Your task to perform on an android device: Open Maps and search for coffee Image 0: 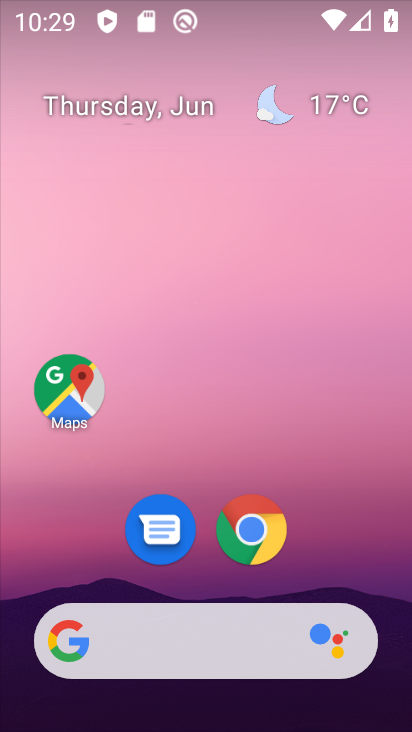
Step 0: click (67, 392)
Your task to perform on an android device: Open Maps and search for coffee Image 1: 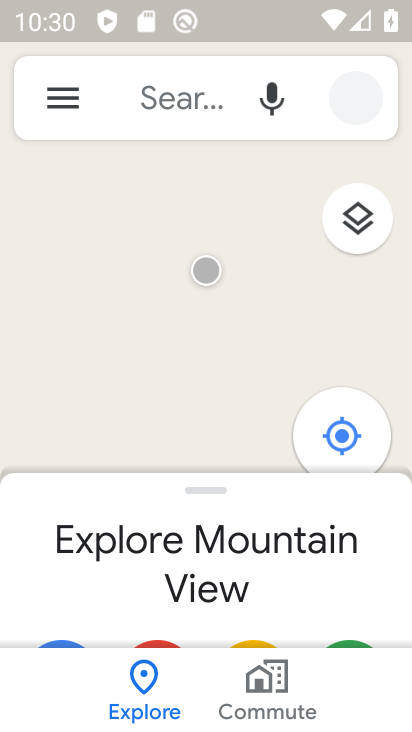
Step 1: click (158, 74)
Your task to perform on an android device: Open Maps and search for coffee Image 2: 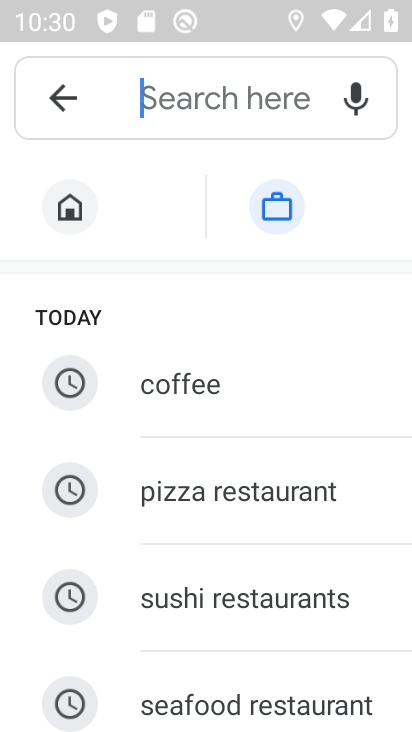
Step 2: type "coffee"
Your task to perform on an android device: Open Maps and search for coffee Image 3: 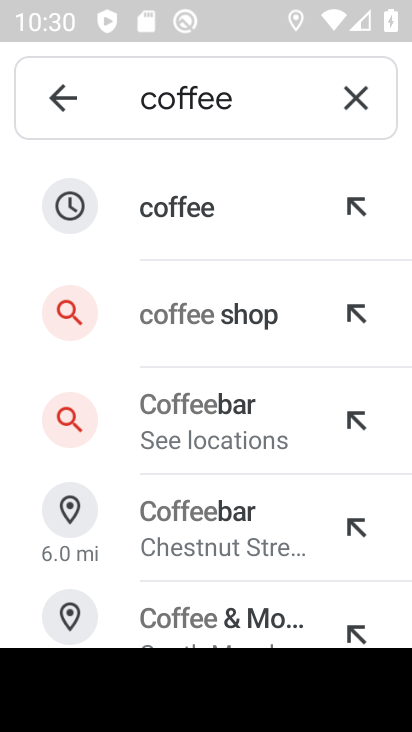
Step 3: click (213, 304)
Your task to perform on an android device: Open Maps and search for coffee Image 4: 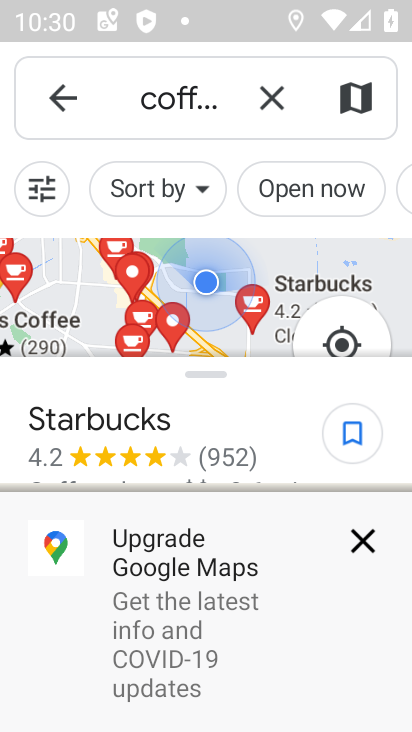
Step 4: click (357, 554)
Your task to perform on an android device: Open Maps and search for coffee Image 5: 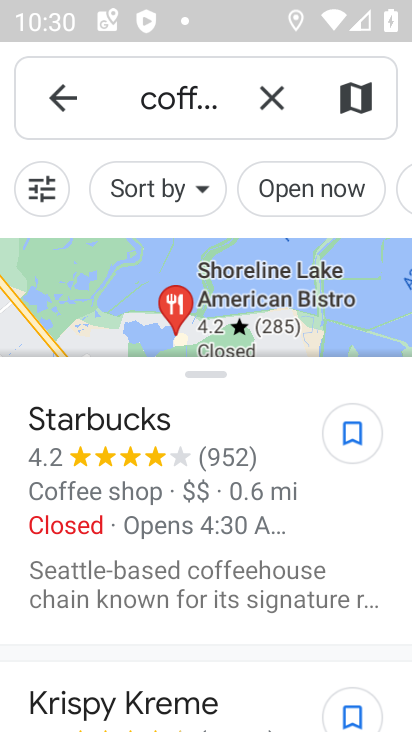
Step 5: task complete